Your task to perform on an android device: toggle sleep mode Image 0: 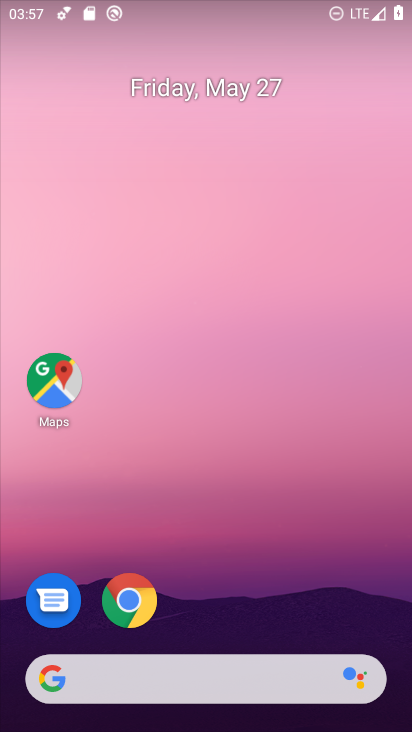
Step 0: drag from (261, 720) to (245, 62)
Your task to perform on an android device: toggle sleep mode Image 1: 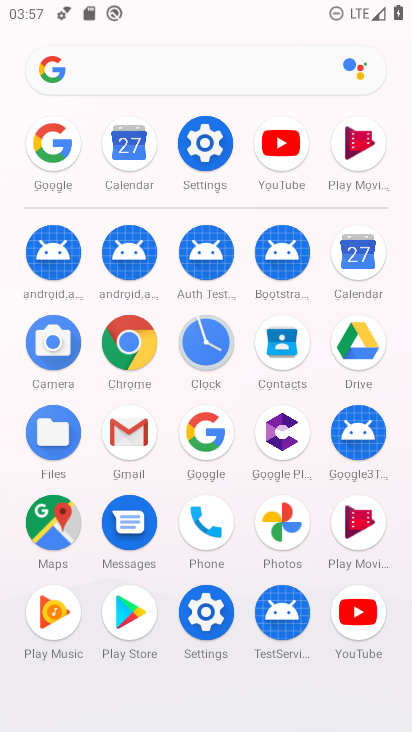
Step 1: click (203, 147)
Your task to perform on an android device: toggle sleep mode Image 2: 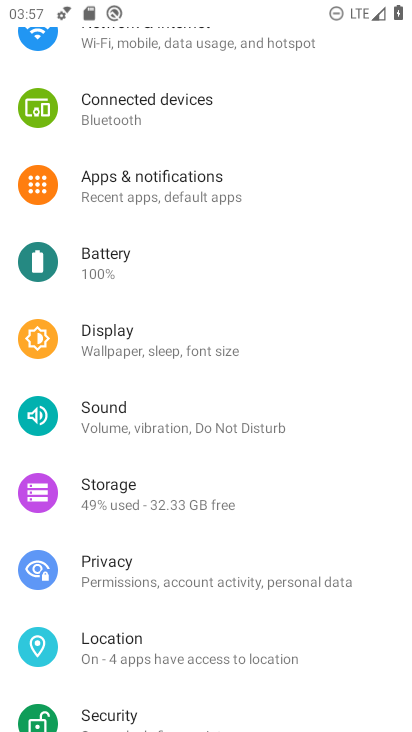
Step 2: drag from (274, 96) to (276, 642)
Your task to perform on an android device: toggle sleep mode Image 3: 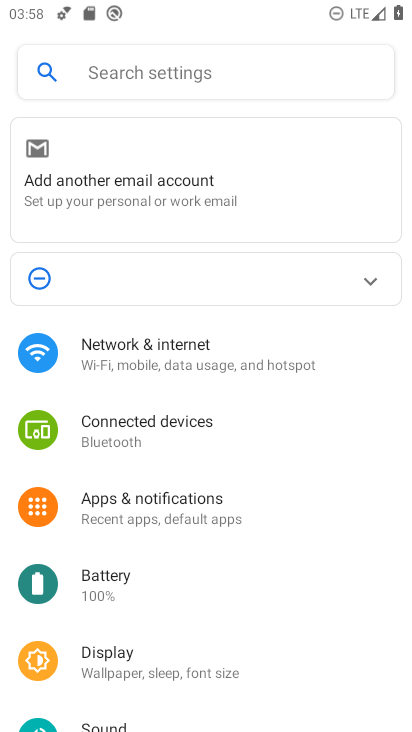
Step 3: drag from (263, 700) to (269, 200)
Your task to perform on an android device: toggle sleep mode Image 4: 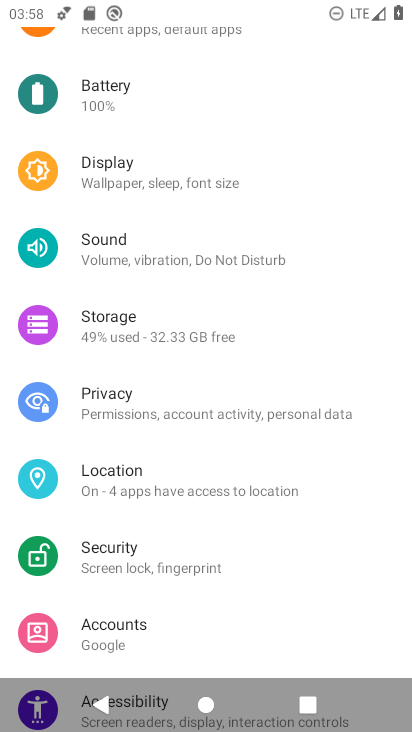
Step 4: drag from (249, 647) to (242, 171)
Your task to perform on an android device: toggle sleep mode Image 5: 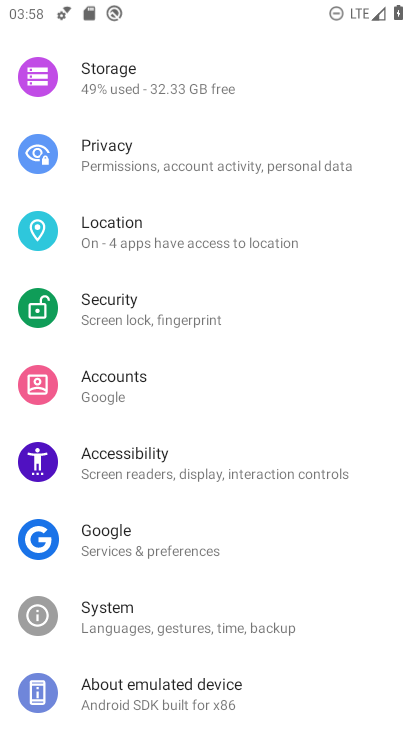
Step 5: drag from (227, 650) to (221, 350)
Your task to perform on an android device: toggle sleep mode Image 6: 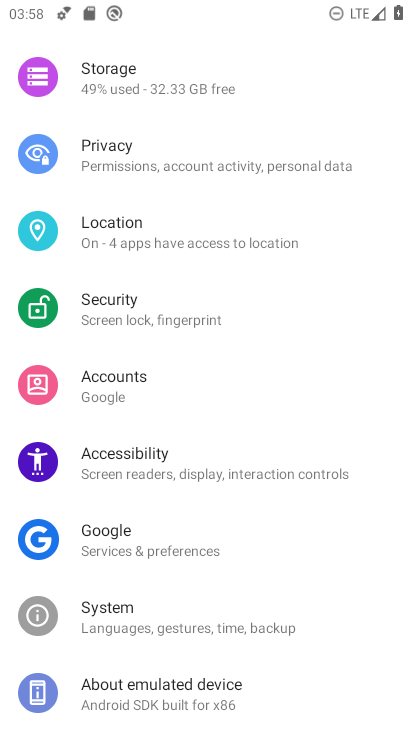
Step 6: drag from (267, 90) to (267, 621)
Your task to perform on an android device: toggle sleep mode Image 7: 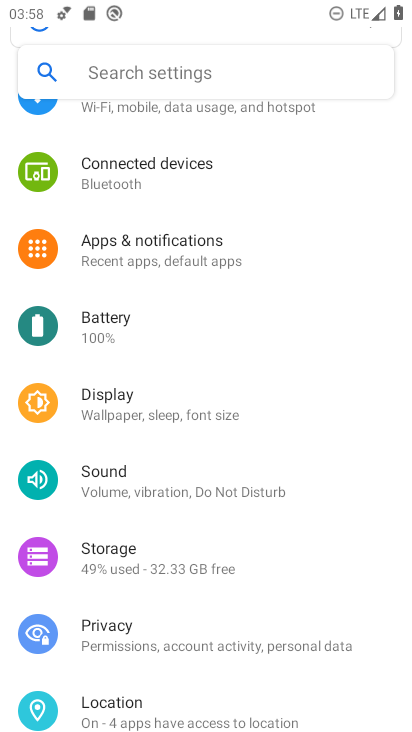
Step 7: click (171, 408)
Your task to perform on an android device: toggle sleep mode Image 8: 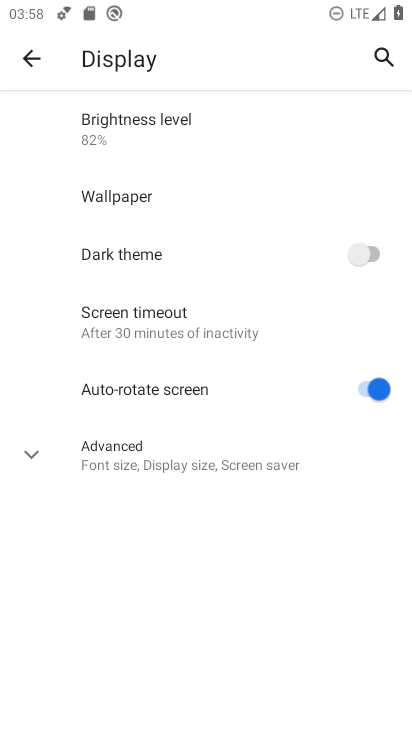
Step 8: task complete